Your task to perform on an android device: check android version Image 0: 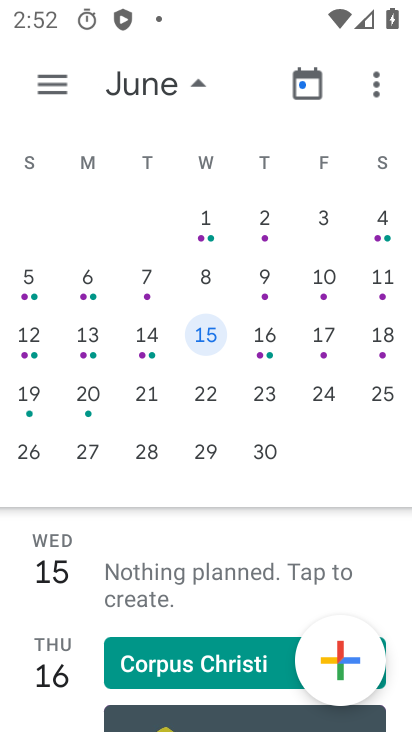
Step 0: press home button
Your task to perform on an android device: check android version Image 1: 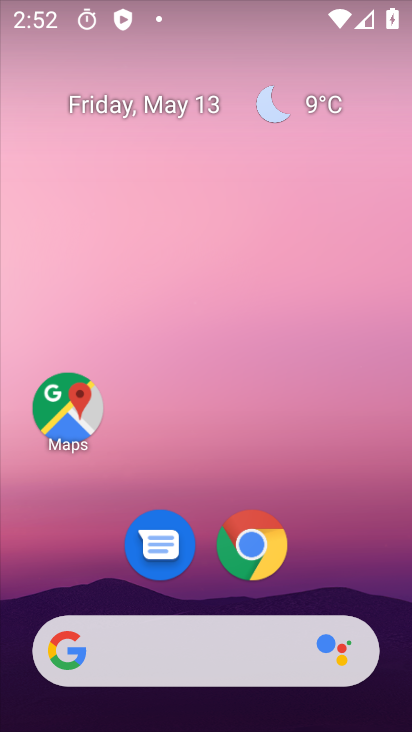
Step 1: drag from (299, 471) to (282, 117)
Your task to perform on an android device: check android version Image 2: 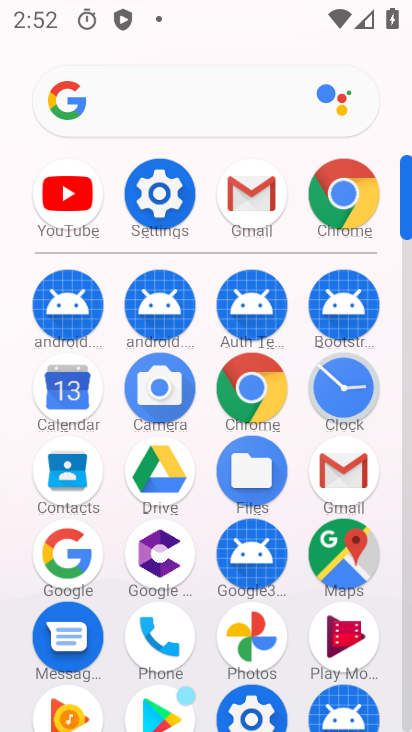
Step 2: click (158, 193)
Your task to perform on an android device: check android version Image 3: 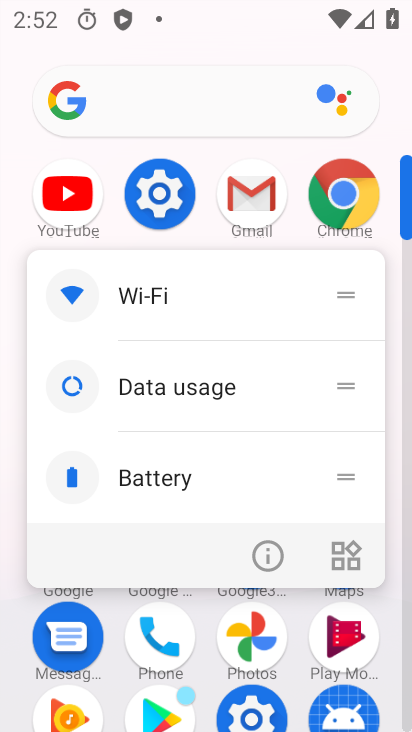
Step 3: click (164, 196)
Your task to perform on an android device: check android version Image 4: 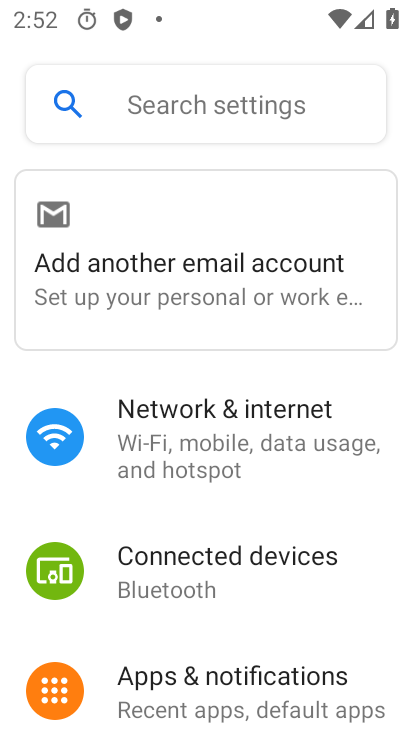
Step 4: drag from (344, 600) to (335, 132)
Your task to perform on an android device: check android version Image 5: 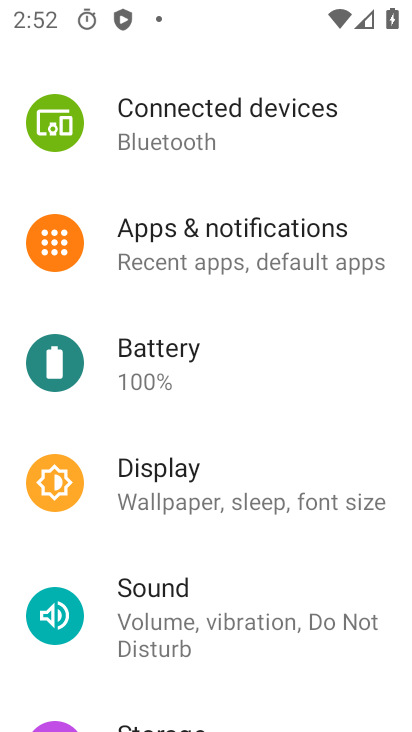
Step 5: drag from (354, 653) to (320, 126)
Your task to perform on an android device: check android version Image 6: 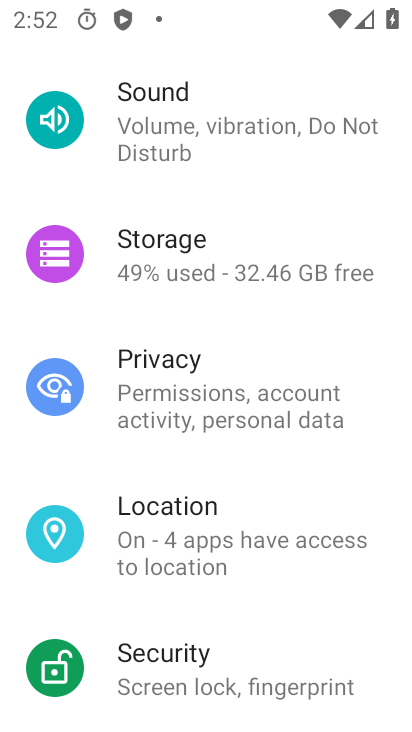
Step 6: drag from (353, 648) to (314, 201)
Your task to perform on an android device: check android version Image 7: 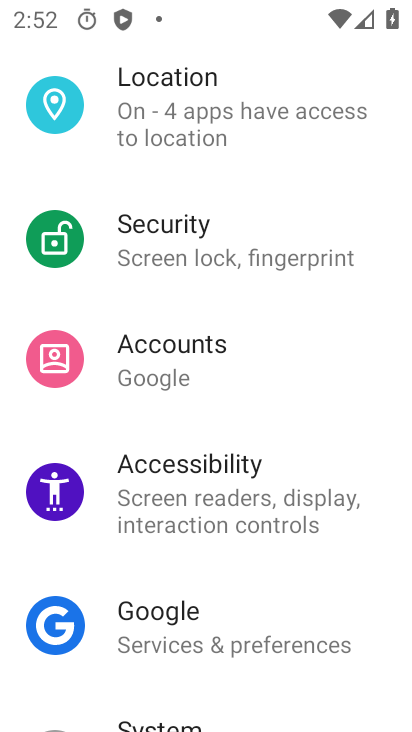
Step 7: drag from (323, 619) to (317, 190)
Your task to perform on an android device: check android version Image 8: 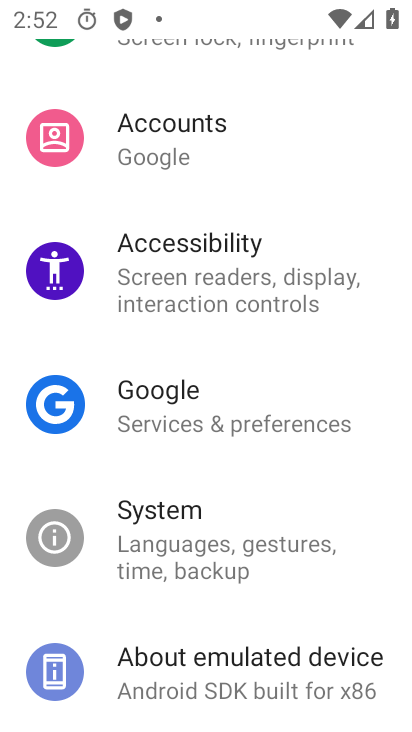
Step 8: click (196, 653)
Your task to perform on an android device: check android version Image 9: 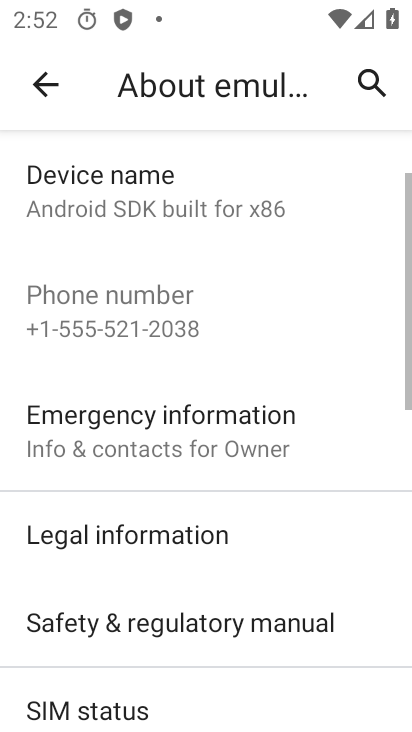
Step 9: drag from (248, 673) to (238, 293)
Your task to perform on an android device: check android version Image 10: 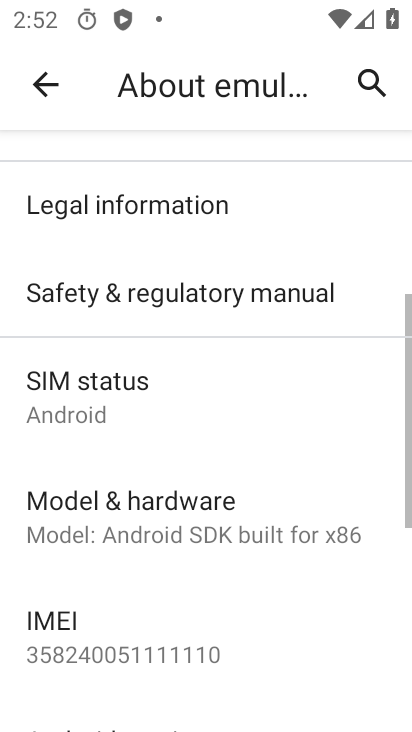
Step 10: drag from (244, 691) to (298, 314)
Your task to perform on an android device: check android version Image 11: 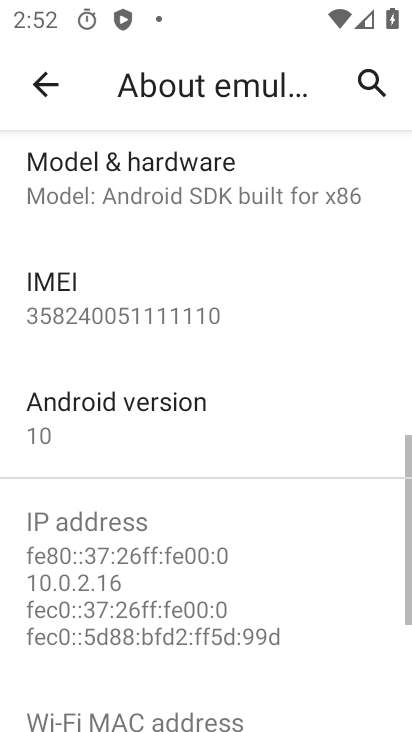
Step 11: click (131, 436)
Your task to perform on an android device: check android version Image 12: 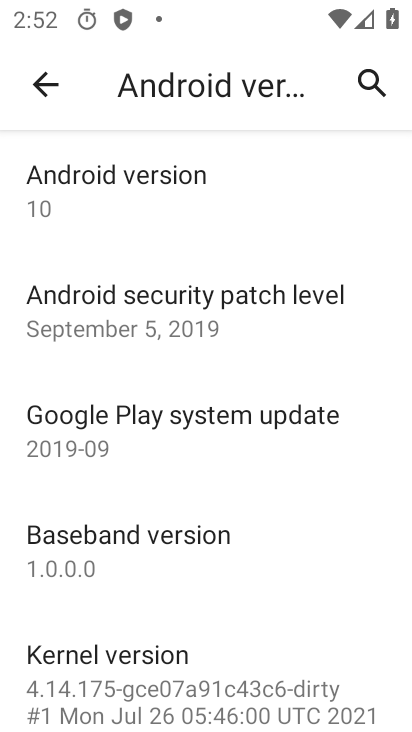
Step 12: task complete